Your task to perform on an android device: What's the weather today? Image 0: 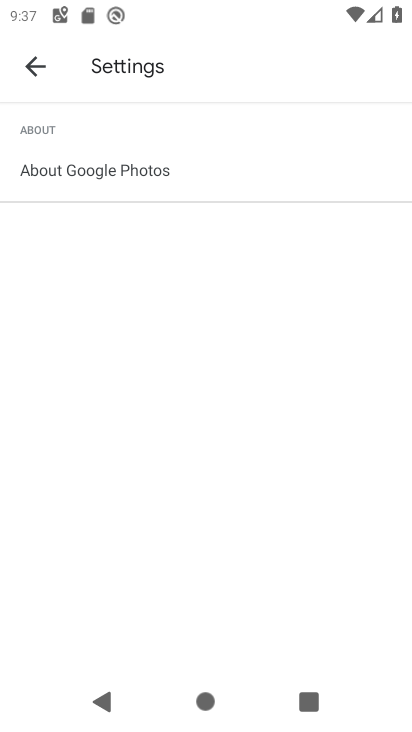
Step 0: press home button
Your task to perform on an android device: What's the weather today? Image 1: 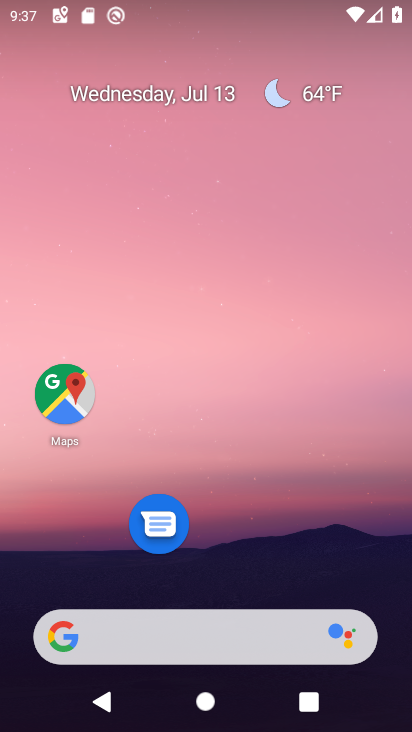
Step 1: click (217, 639)
Your task to perform on an android device: What's the weather today? Image 2: 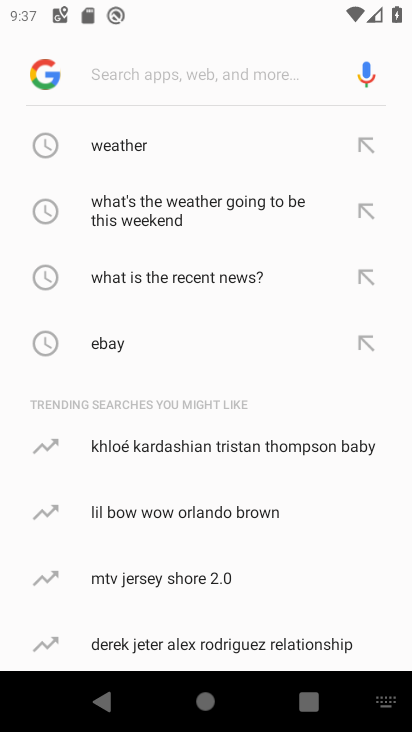
Step 2: click (113, 141)
Your task to perform on an android device: What's the weather today? Image 3: 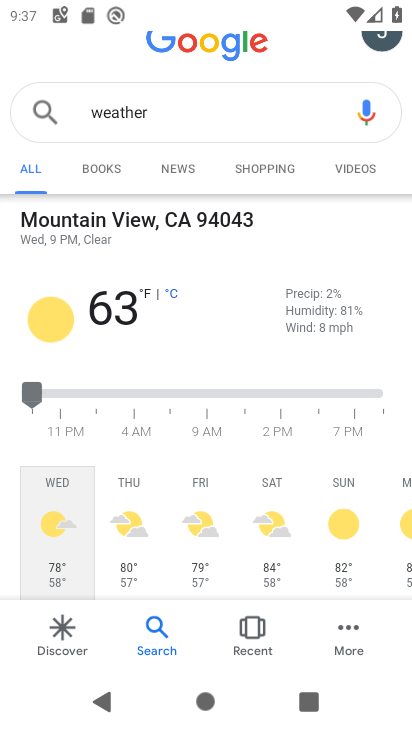
Step 3: click (68, 485)
Your task to perform on an android device: What's the weather today? Image 4: 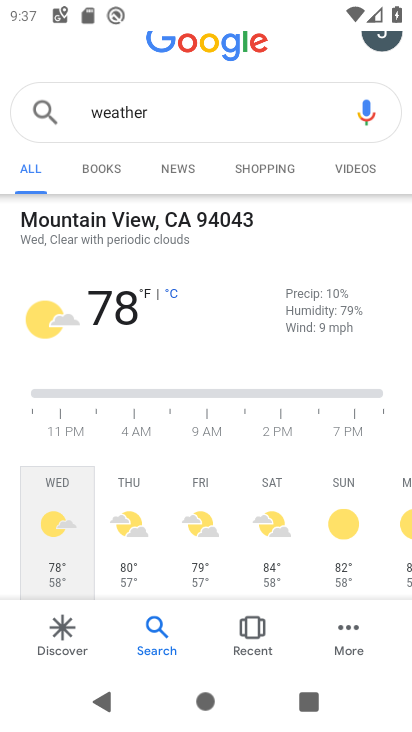
Step 4: task complete